Your task to perform on an android device: open app "AliExpress" (install if not already installed), go to login, and select forgot password Image 0: 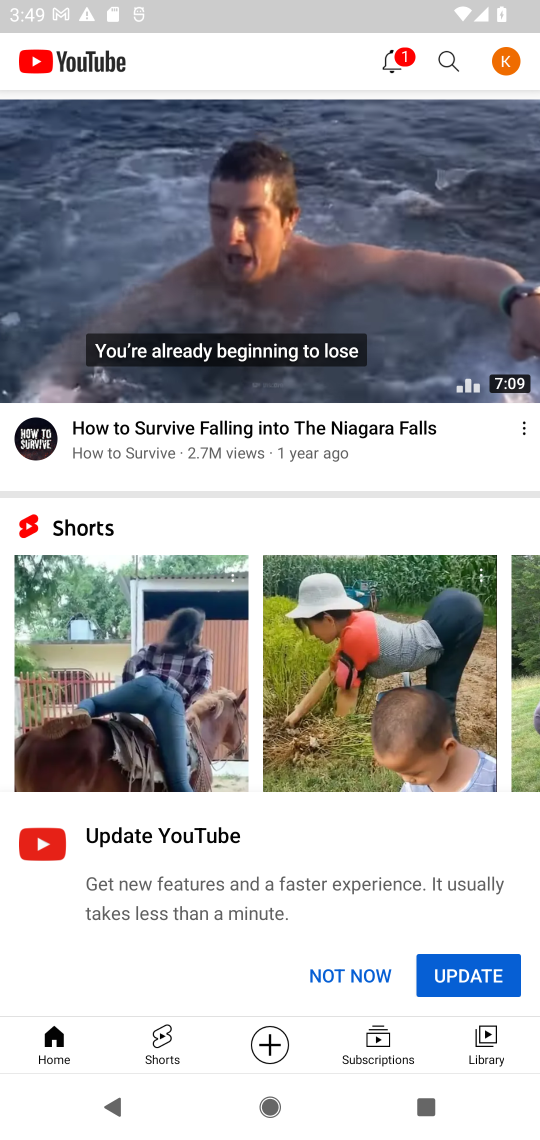
Step 0: press home button
Your task to perform on an android device: open app "AliExpress" (install if not already installed), go to login, and select forgot password Image 1: 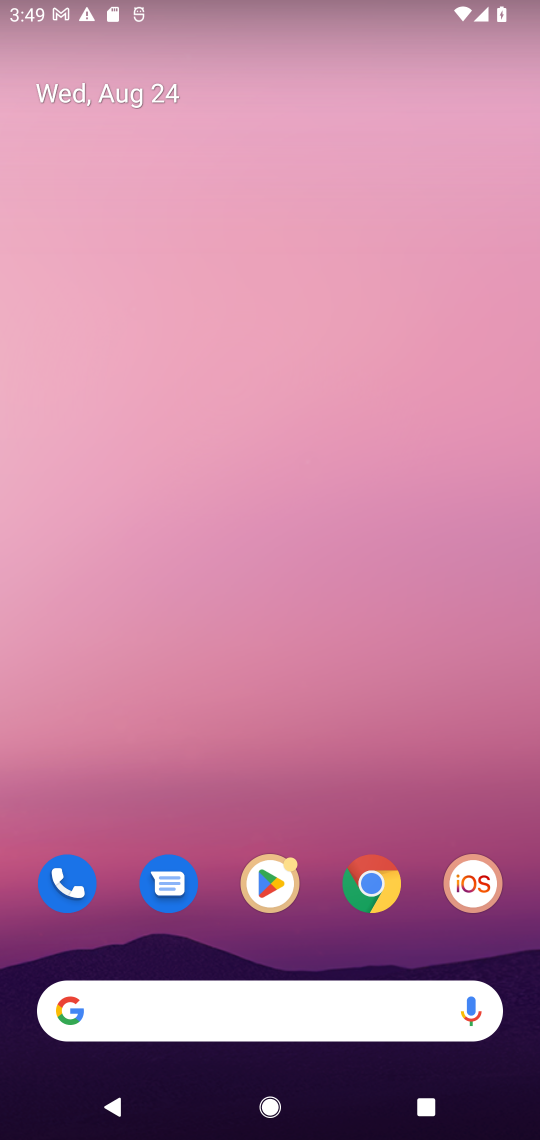
Step 1: drag from (125, 753) to (132, 285)
Your task to perform on an android device: open app "AliExpress" (install if not already installed), go to login, and select forgot password Image 2: 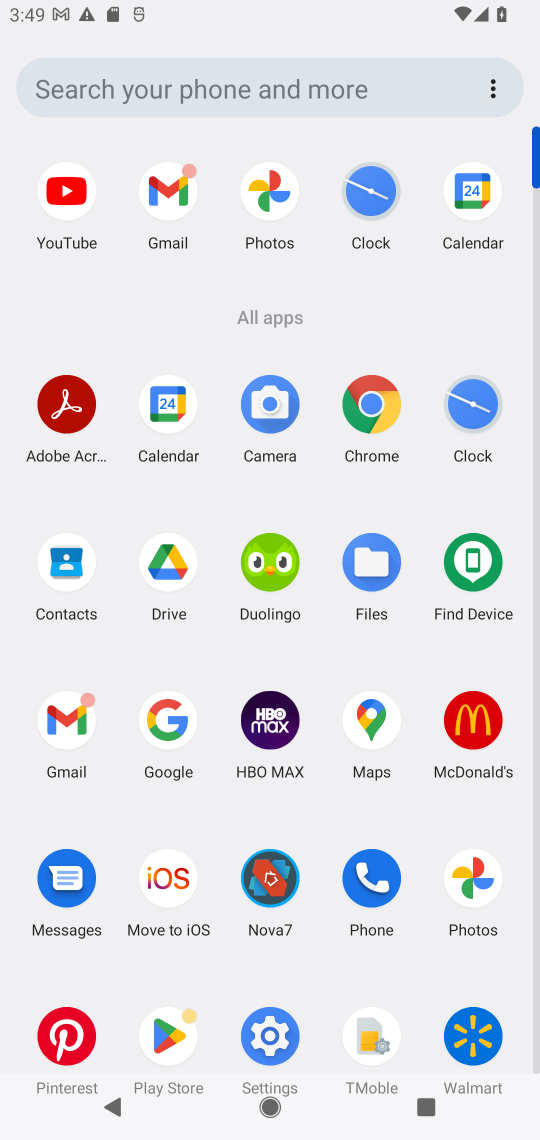
Step 2: click (168, 1041)
Your task to perform on an android device: open app "AliExpress" (install if not already installed), go to login, and select forgot password Image 3: 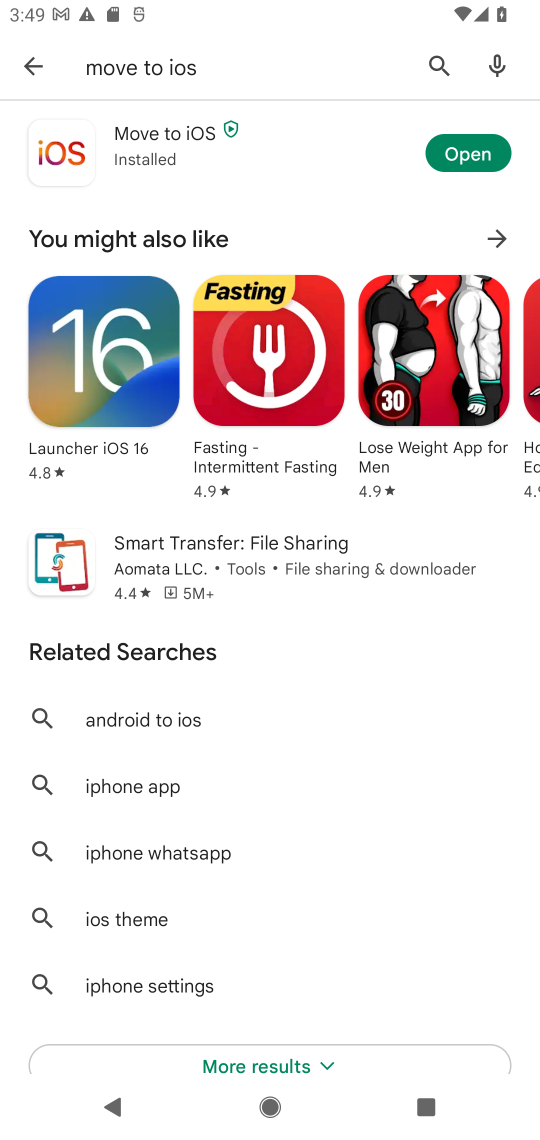
Step 3: click (445, 63)
Your task to perform on an android device: open app "AliExpress" (install if not already installed), go to login, and select forgot password Image 4: 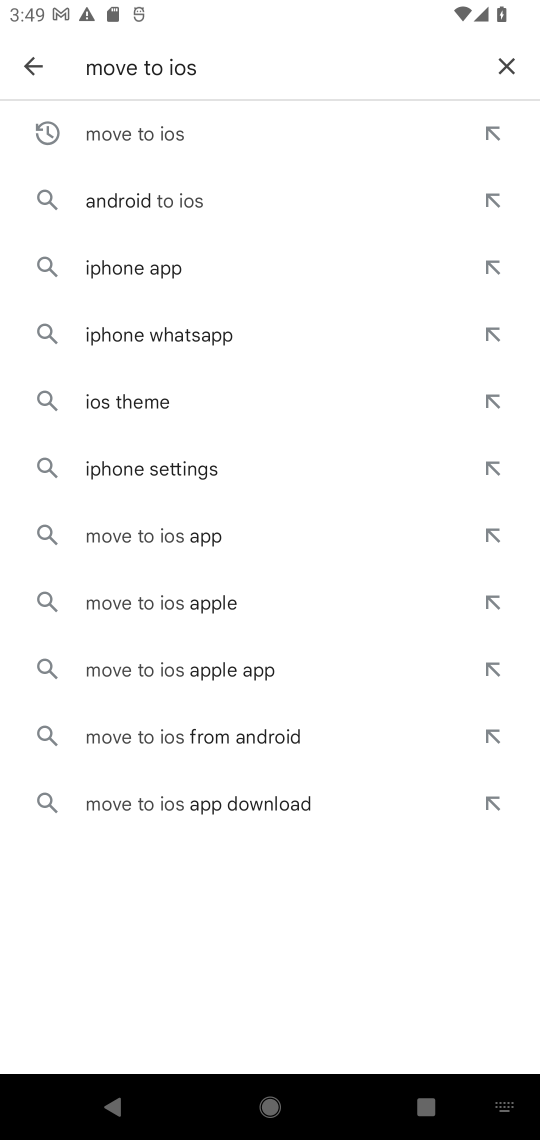
Step 4: click (514, 64)
Your task to perform on an android device: open app "AliExpress" (install if not already installed), go to login, and select forgot password Image 5: 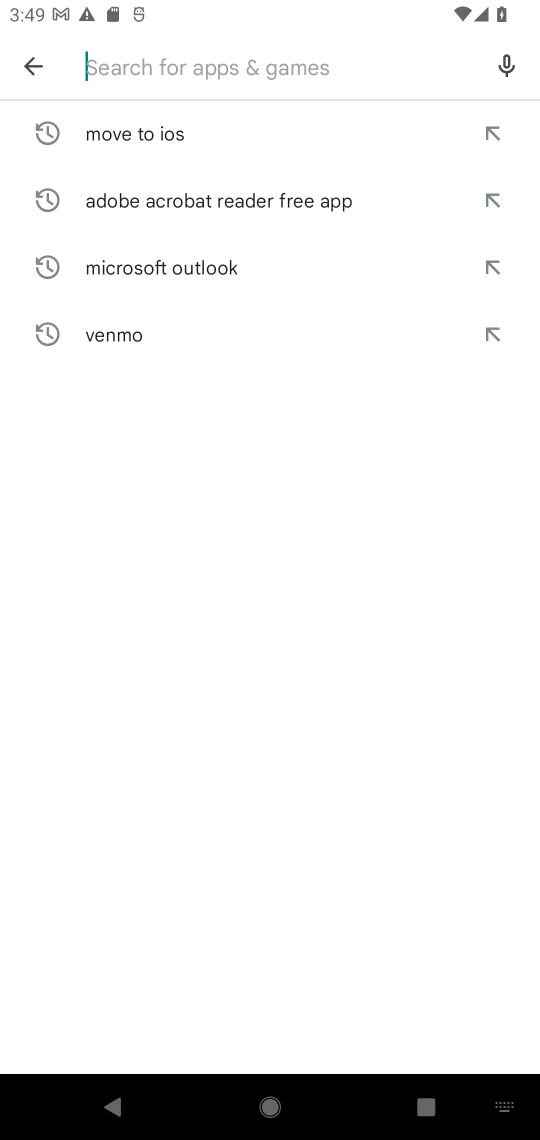
Step 5: type "AliExpress"
Your task to perform on an android device: open app "AliExpress" (install if not already installed), go to login, and select forgot password Image 6: 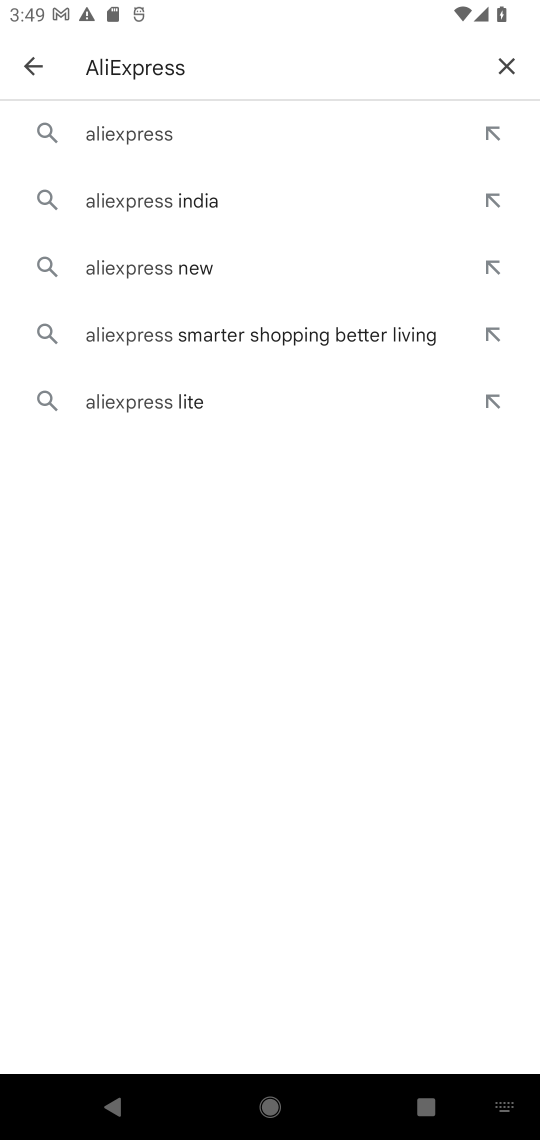
Step 6: click (172, 127)
Your task to perform on an android device: open app "AliExpress" (install if not already installed), go to login, and select forgot password Image 7: 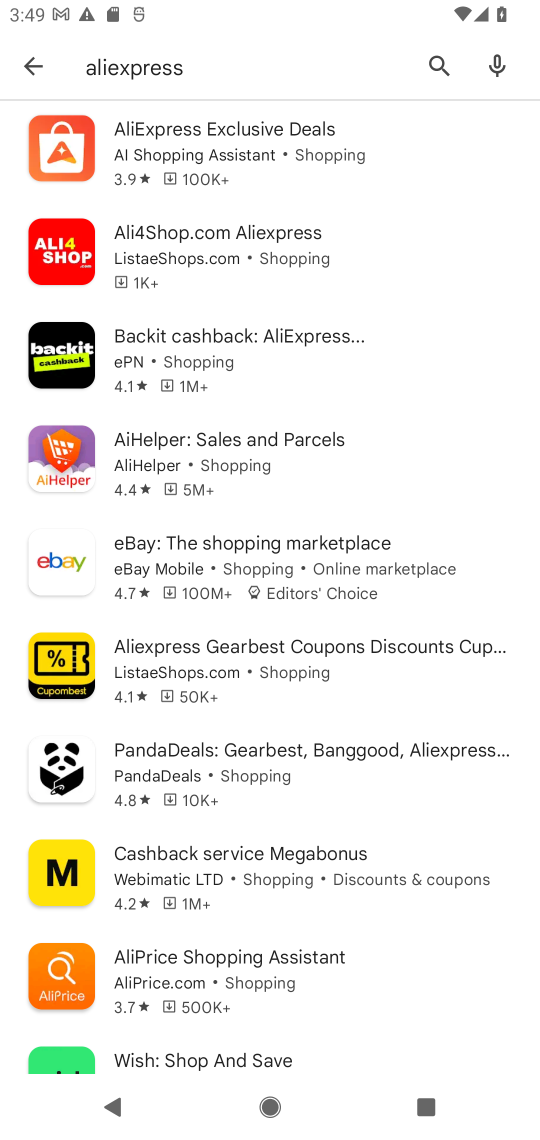
Step 7: click (191, 129)
Your task to perform on an android device: open app "AliExpress" (install if not already installed), go to login, and select forgot password Image 8: 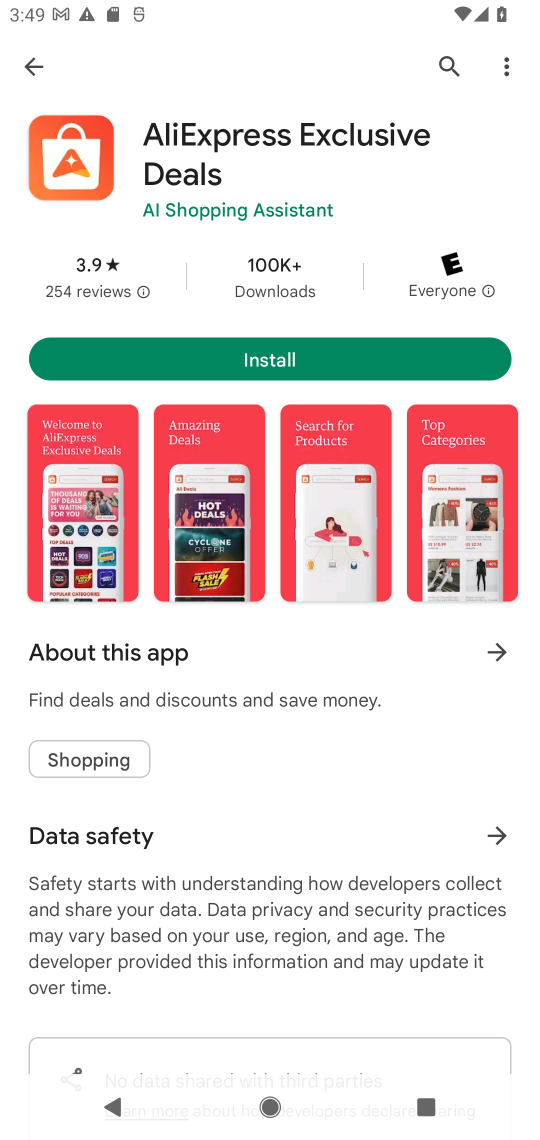
Step 8: click (265, 362)
Your task to perform on an android device: open app "AliExpress" (install if not already installed), go to login, and select forgot password Image 9: 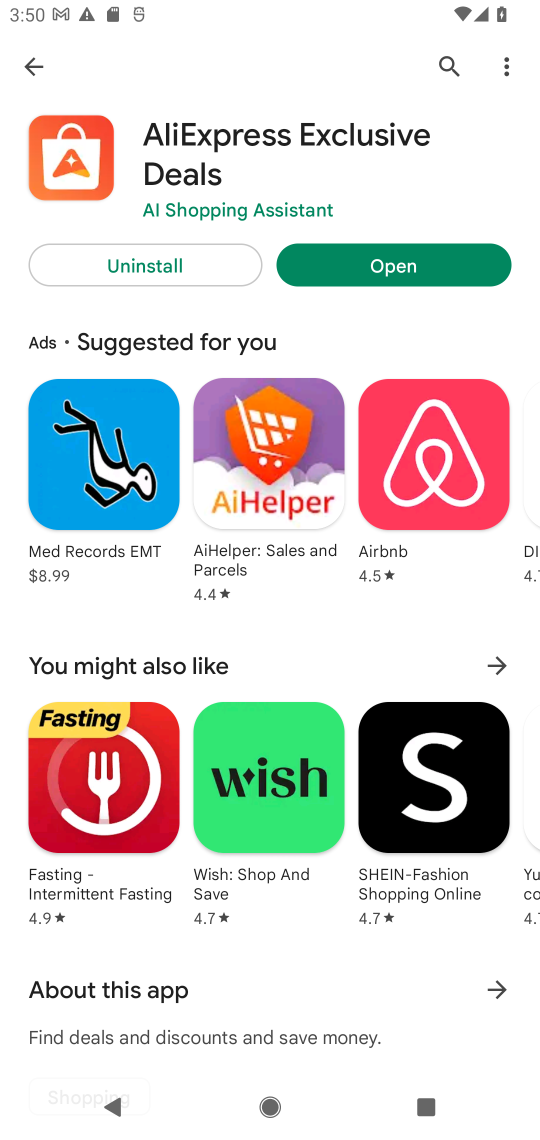
Step 9: click (364, 267)
Your task to perform on an android device: open app "AliExpress" (install if not already installed), go to login, and select forgot password Image 10: 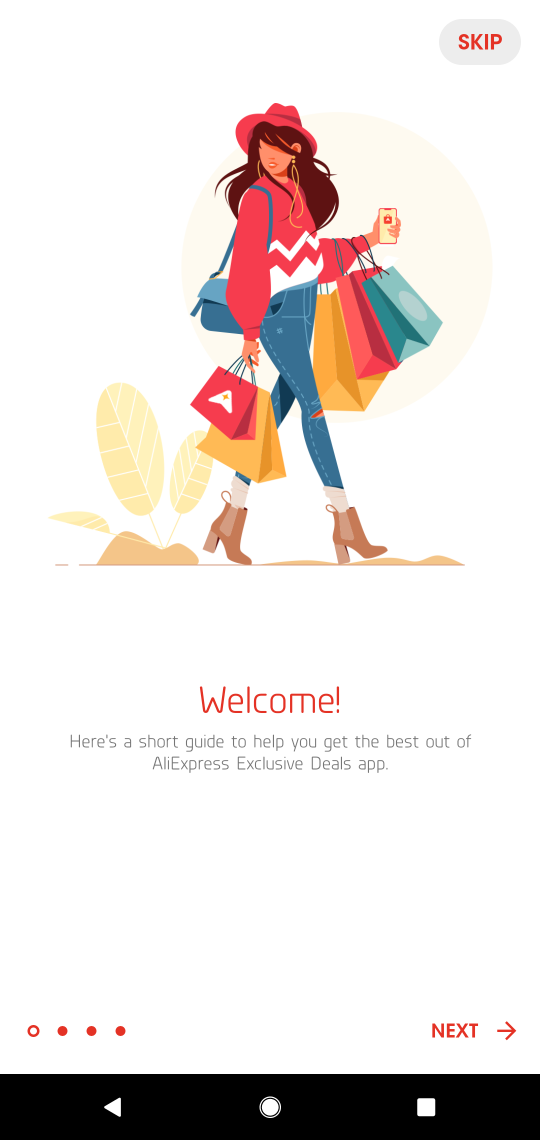
Step 10: click (435, 1030)
Your task to perform on an android device: open app "AliExpress" (install if not already installed), go to login, and select forgot password Image 11: 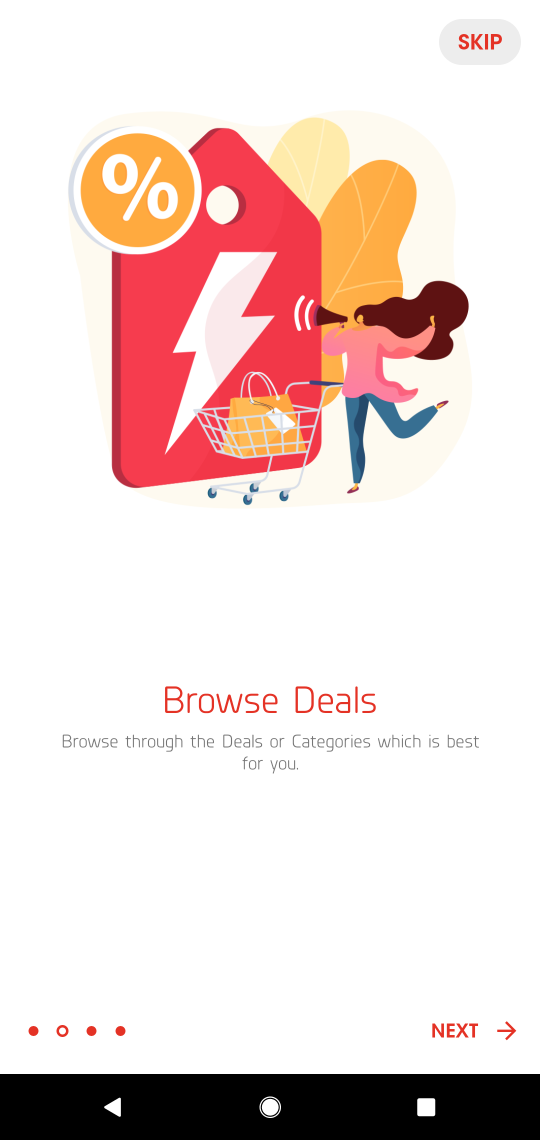
Step 11: task complete